Your task to perform on an android device: Search for seafood restaurants on Google Maps Image 0: 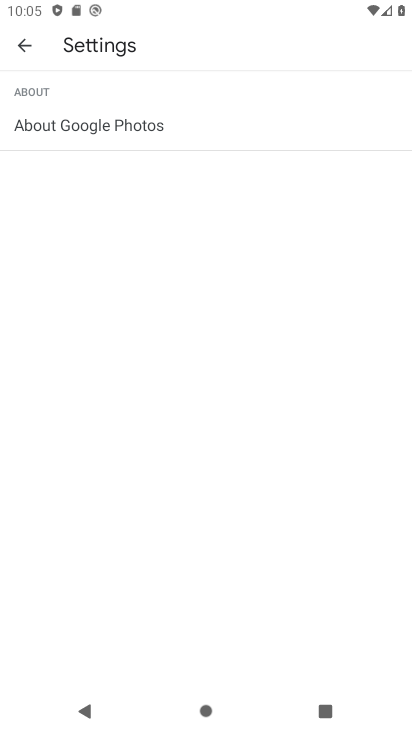
Step 0: press home button
Your task to perform on an android device: Search for seafood restaurants on Google Maps Image 1: 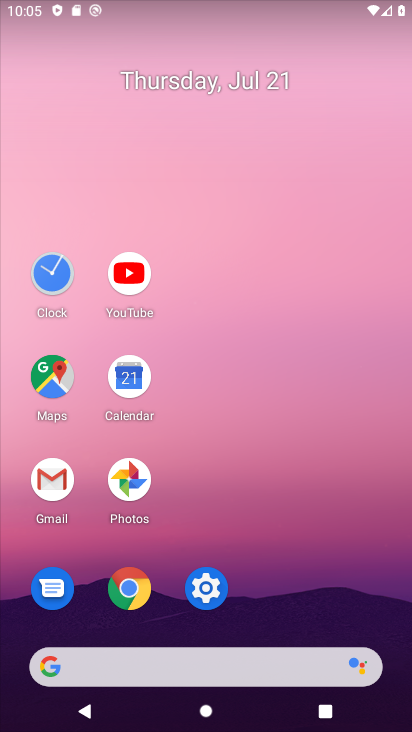
Step 1: click (41, 370)
Your task to perform on an android device: Search for seafood restaurants on Google Maps Image 2: 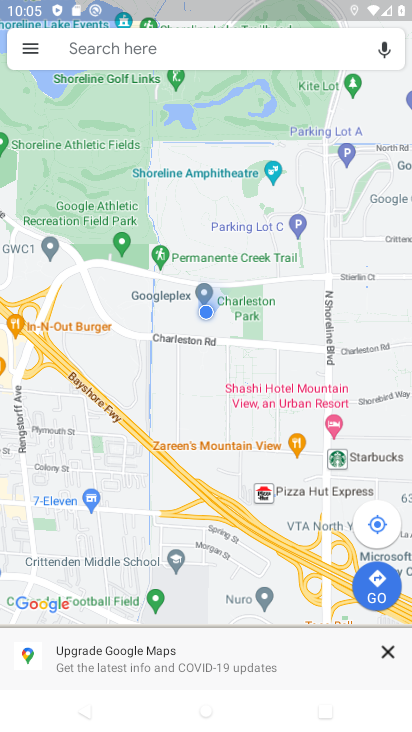
Step 2: click (91, 43)
Your task to perform on an android device: Search for seafood restaurants on Google Maps Image 3: 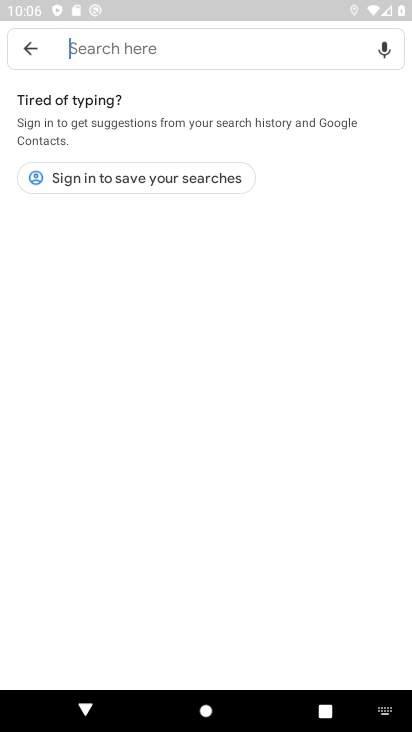
Step 3: type "seafood restaurants"
Your task to perform on an android device: Search for seafood restaurants on Google Maps Image 4: 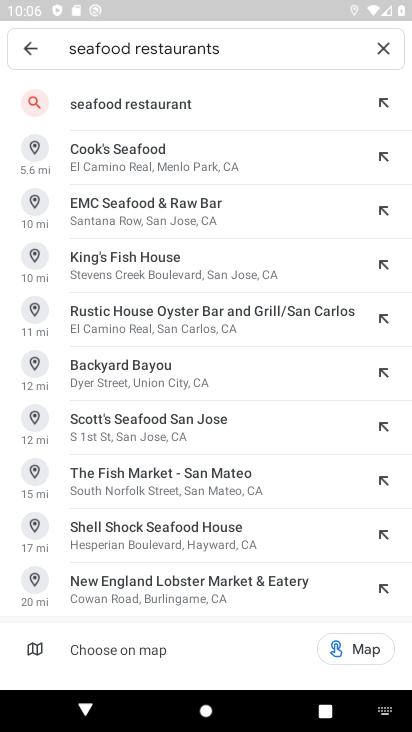
Step 4: click (136, 101)
Your task to perform on an android device: Search for seafood restaurants on Google Maps Image 5: 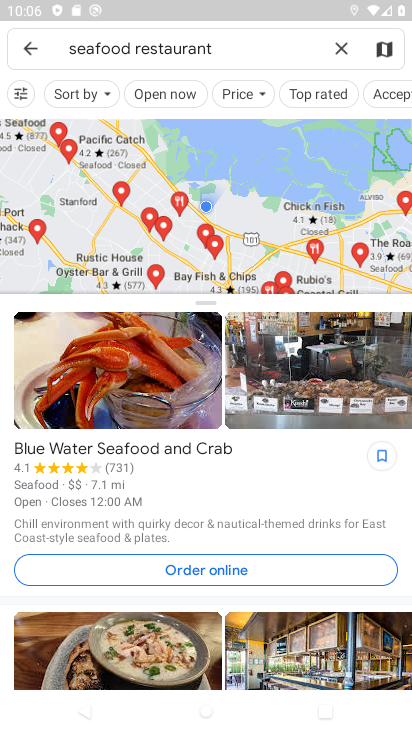
Step 5: task complete